Your task to perform on an android device: Turn on the flashlight Image 0: 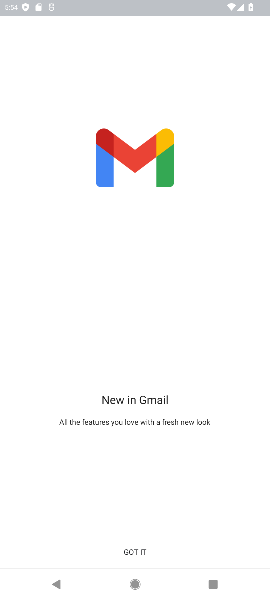
Step 0: press home button
Your task to perform on an android device: Turn on the flashlight Image 1: 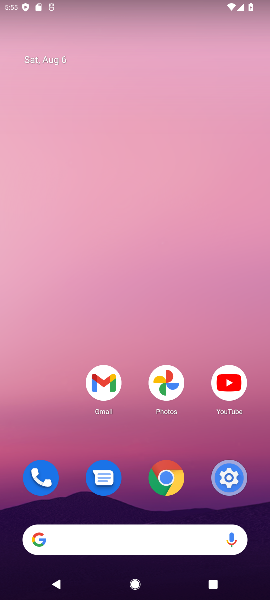
Step 1: click (238, 476)
Your task to perform on an android device: Turn on the flashlight Image 2: 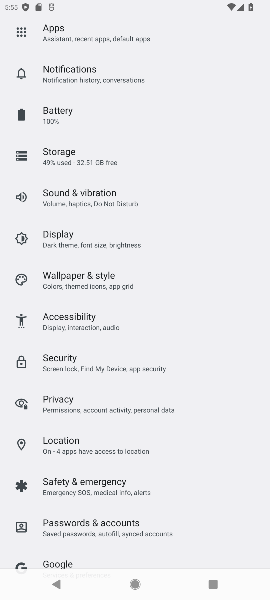
Step 2: task complete